Your task to perform on an android device: Open settings Image 0: 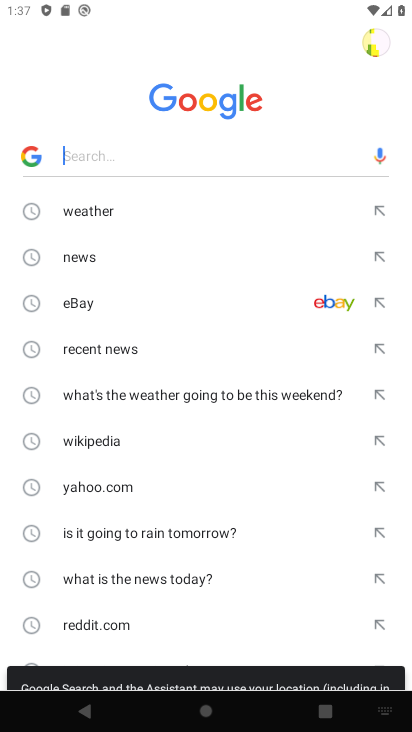
Step 0: press home button
Your task to perform on an android device: Open settings Image 1: 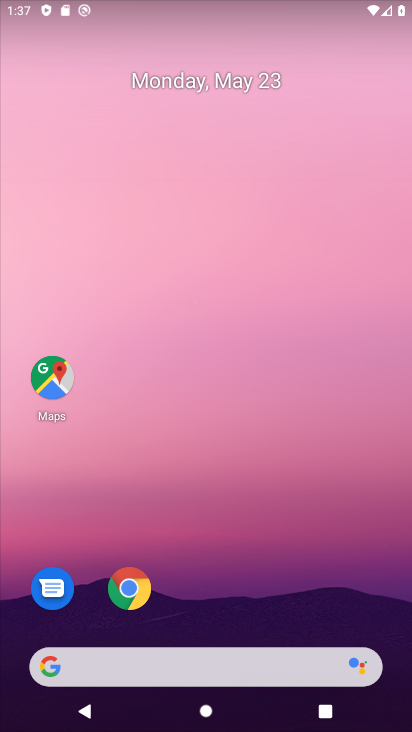
Step 1: drag from (240, 725) to (162, 0)
Your task to perform on an android device: Open settings Image 2: 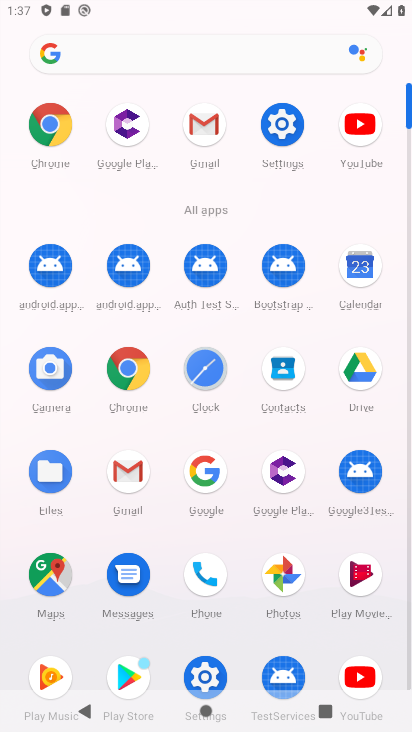
Step 2: click (289, 116)
Your task to perform on an android device: Open settings Image 3: 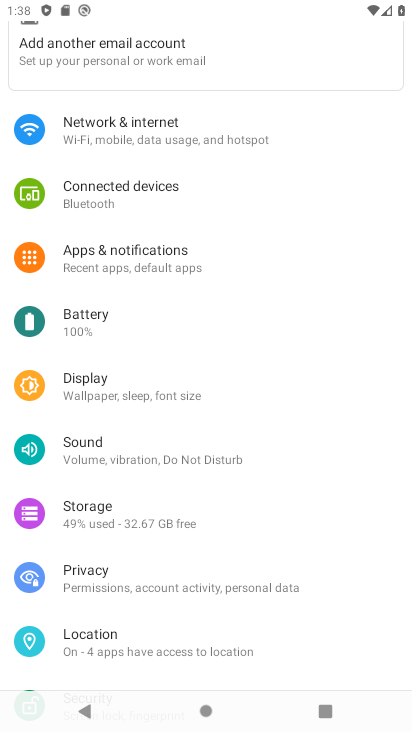
Step 3: task complete